Your task to perform on an android device: open device folders in google photos Image 0: 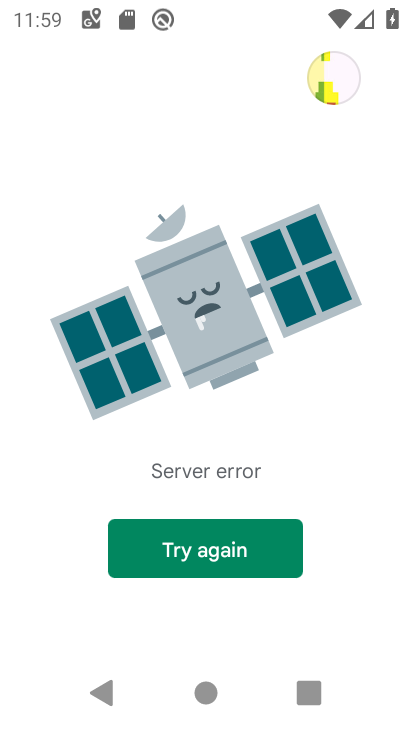
Step 0: press back button
Your task to perform on an android device: open device folders in google photos Image 1: 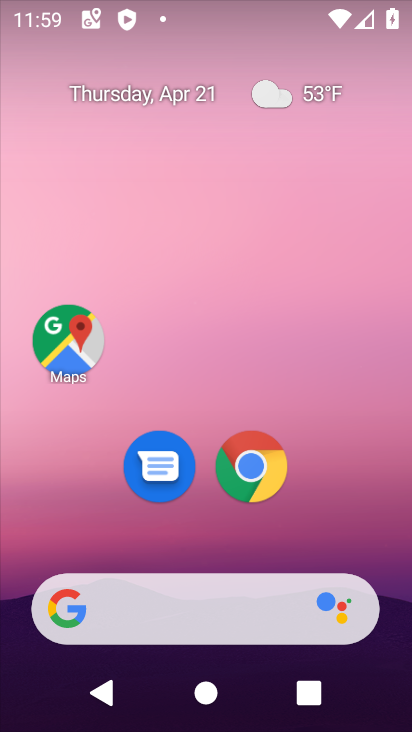
Step 1: drag from (347, 507) to (220, 22)
Your task to perform on an android device: open device folders in google photos Image 2: 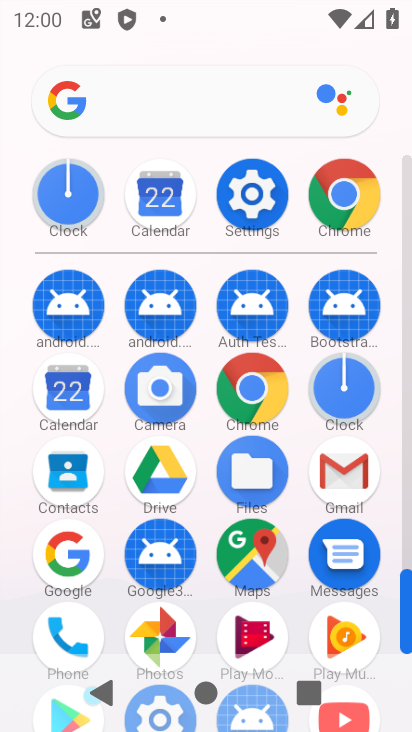
Step 2: click (148, 633)
Your task to perform on an android device: open device folders in google photos Image 3: 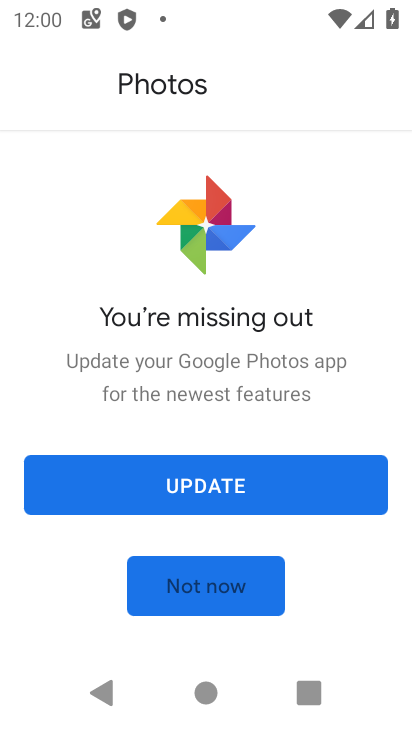
Step 3: click (185, 586)
Your task to perform on an android device: open device folders in google photos Image 4: 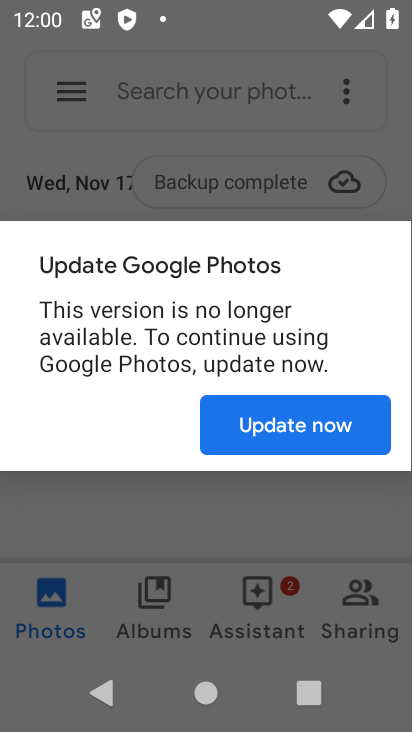
Step 4: click (307, 425)
Your task to perform on an android device: open device folders in google photos Image 5: 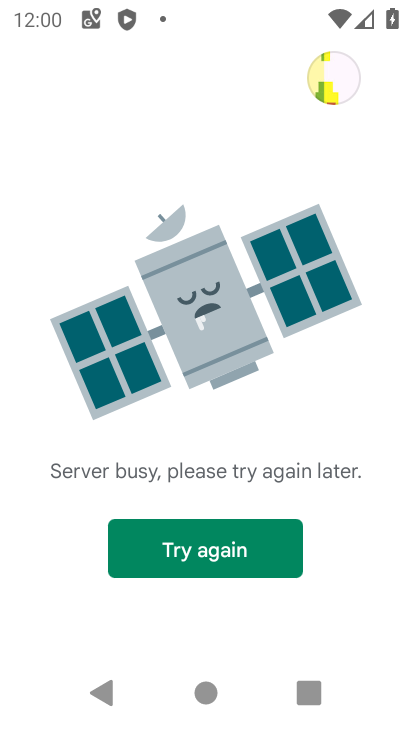
Step 5: click (250, 550)
Your task to perform on an android device: open device folders in google photos Image 6: 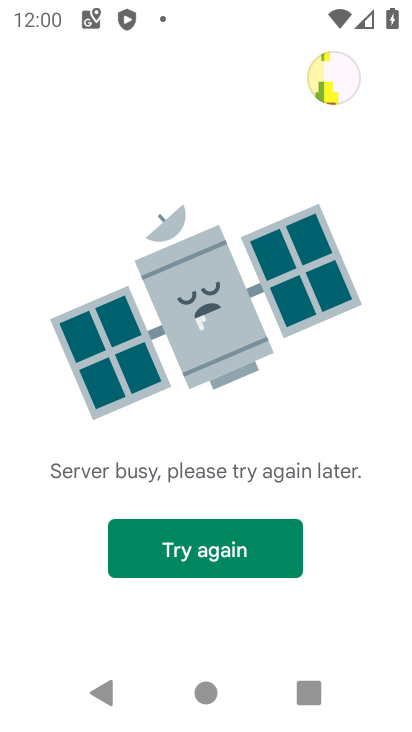
Step 6: click (199, 550)
Your task to perform on an android device: open device folders in google photos Image 7: 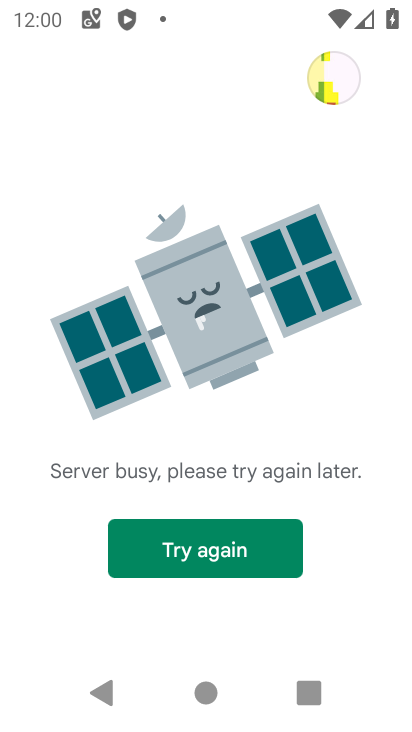
Step 7: click (207, 531)
Your task to perform on an android device: open device folders in google photos Image 8: 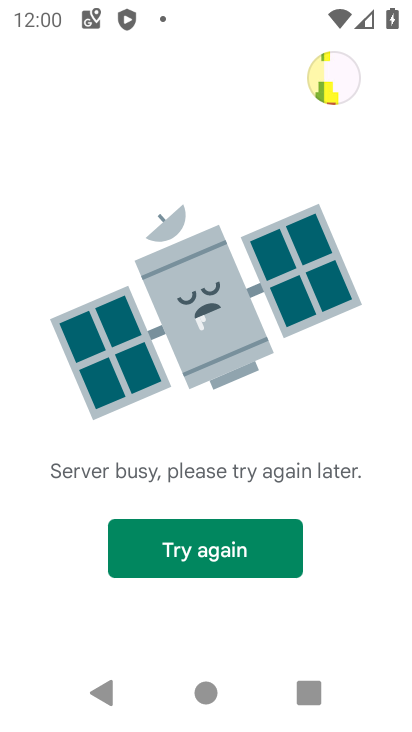
Step 8: task complete